Your task to perform on an android device: Open the calendar app, open the side menu, and click the "Day" option Image 0: 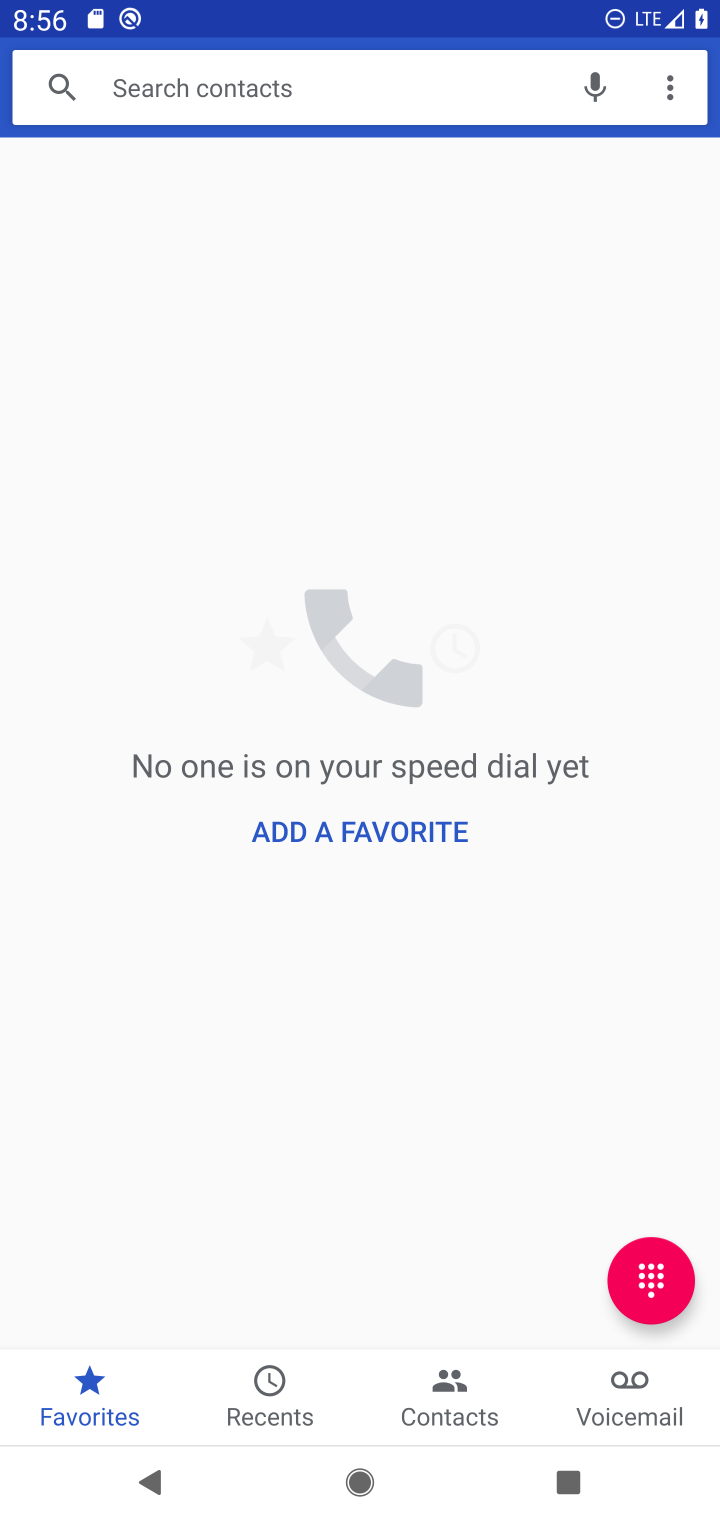
Step 0: press home button
Your task to perform on an android device: Open the calendar app, open the side menu, and click the "Day" option Image 1: 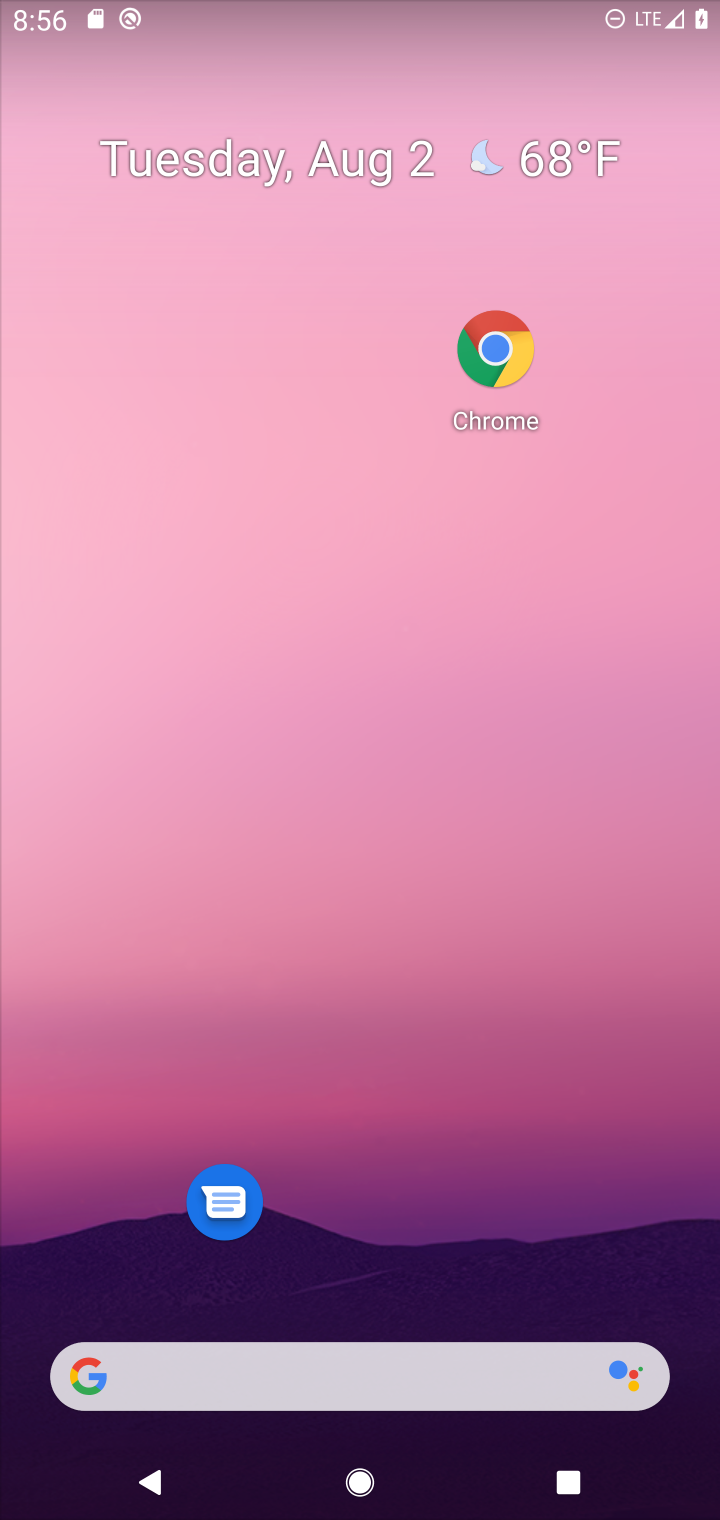
Step 1: drag from (408, 755) to (346, 25)
Your task to perform on an android device: Open the calendar app, open the side menu, and click the "Day" option Image 2: 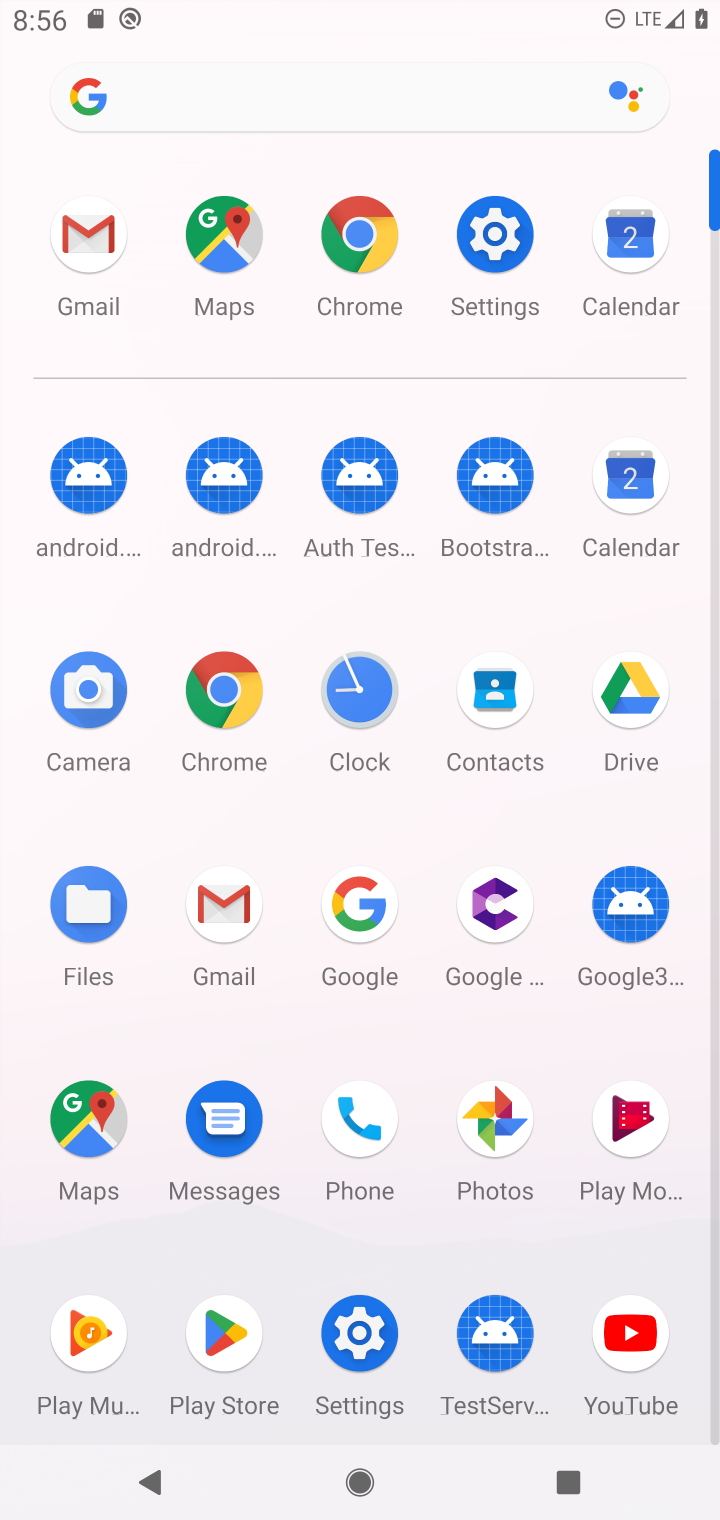
Step 2: click (630, 249)
Your task to perform on an android device: Open the calendar app, open the side menu, and click the "Day" option Image 3: 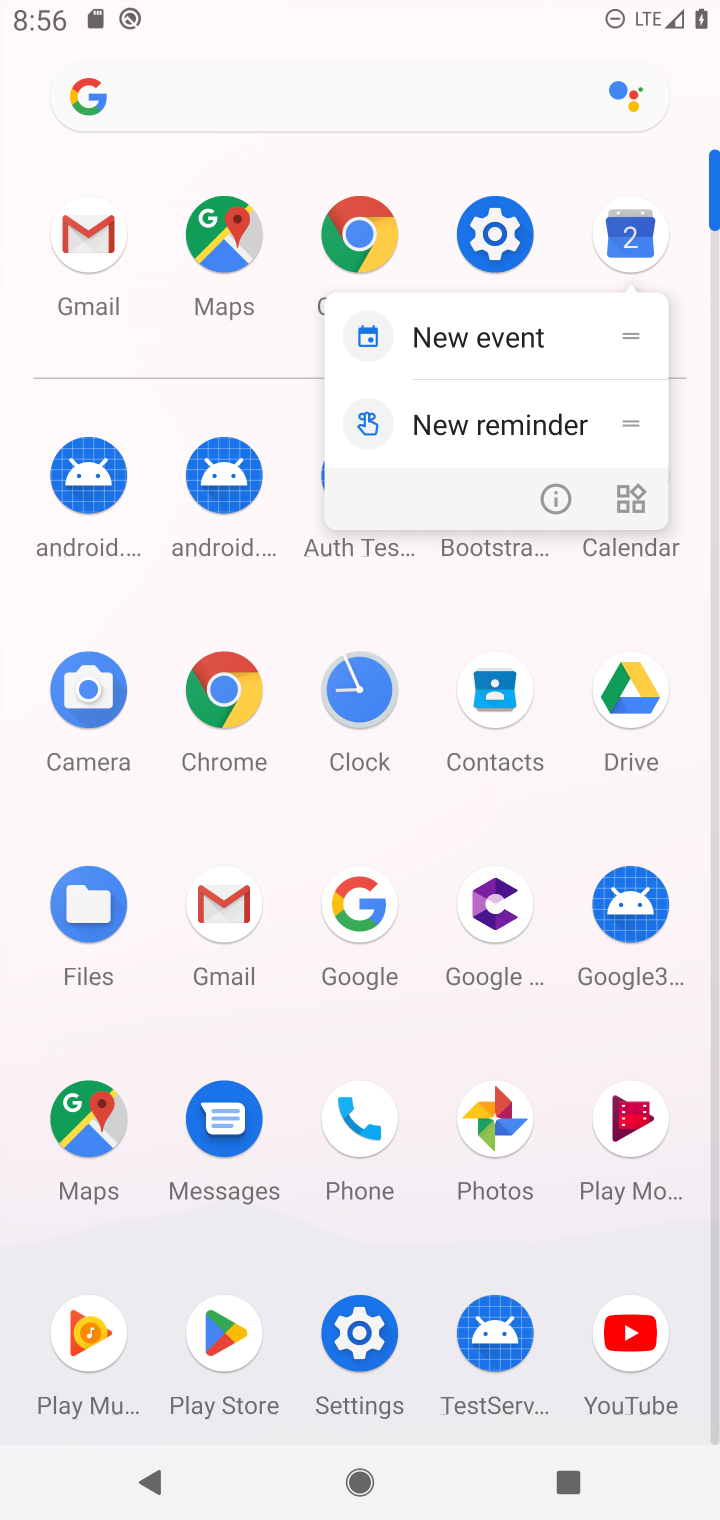
Step 3: click (630, 249)
Your task to perform on an android device: Open the calendar app, open the side menu, and click the "Day" option Image 4: 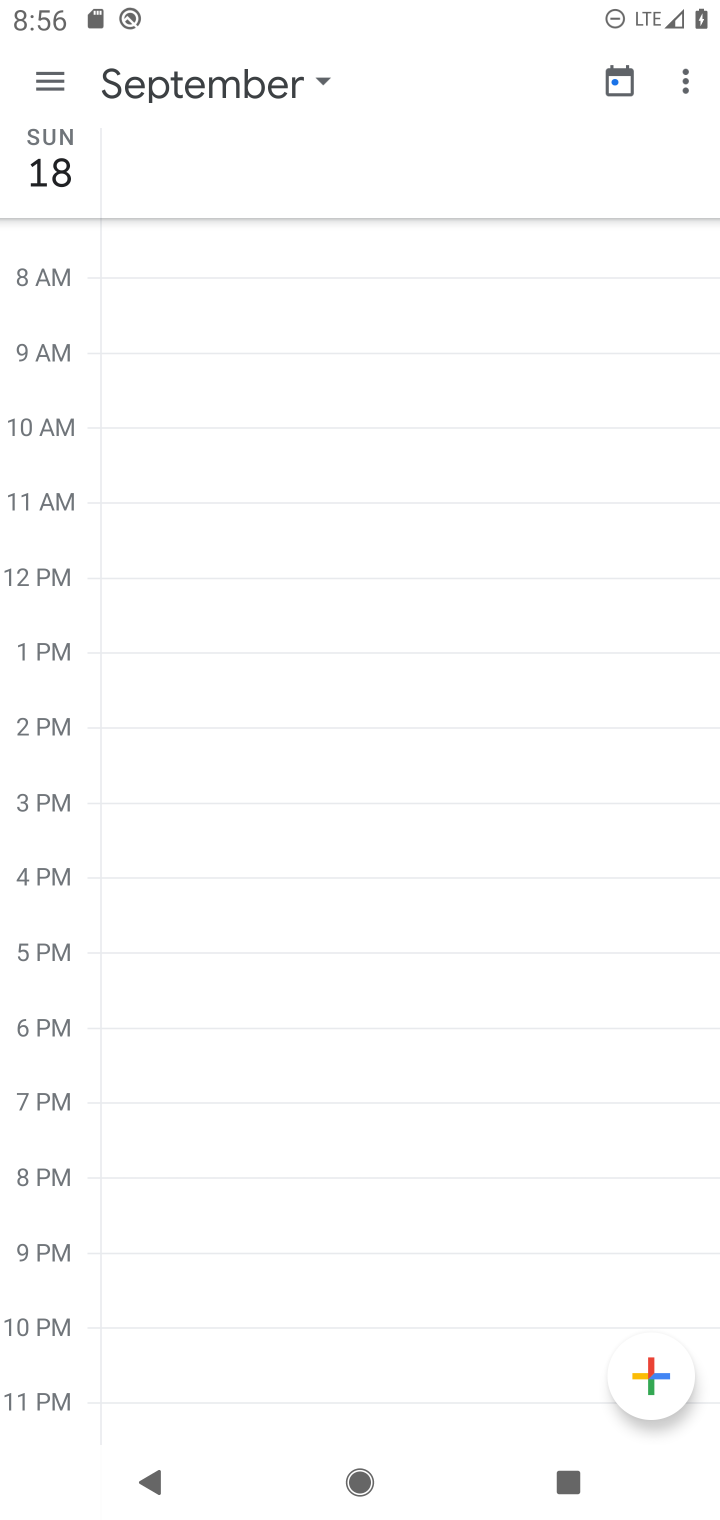
Step 4: click (58, 69)
Your task to perform on an android device: Open the calendar app, open the side menu, and click the "Day" option Image 5: 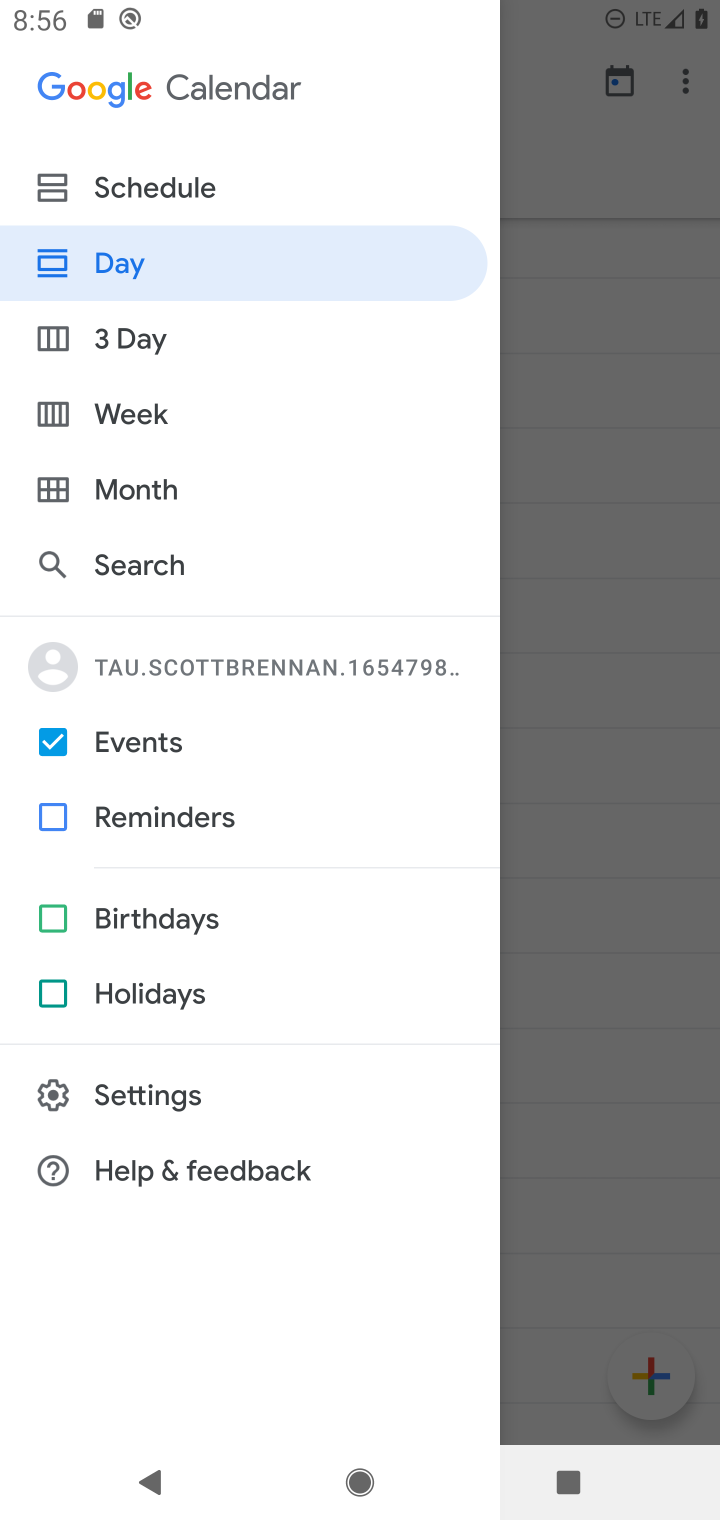
Step 5: click (101, 257)
Your task to perform on an android device: Open the calendar app, open the side menu, and click the "Day" option Image 6: 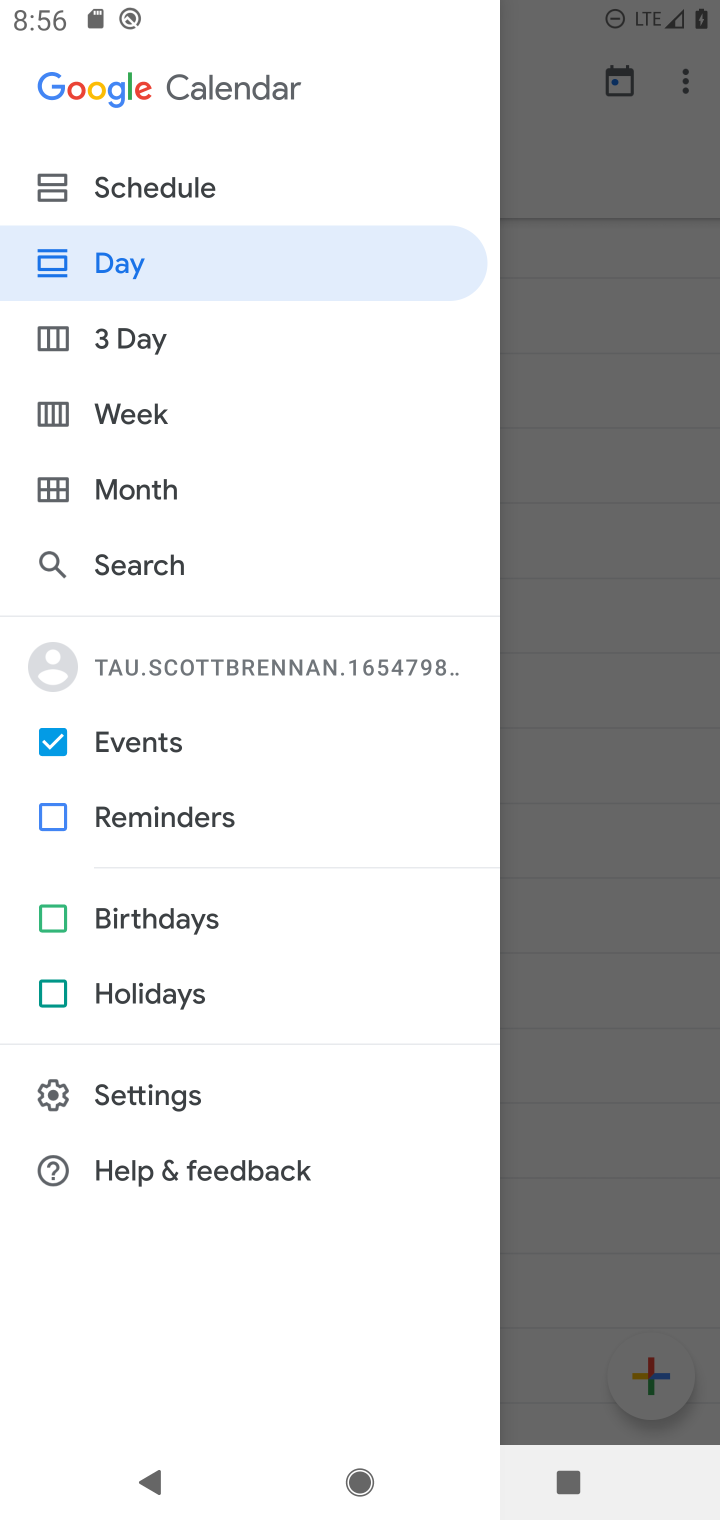
Step 6: click (118, 255)
Your task to perform on an android device: Open the calendar app, open the side menu, and click the "Day" option Image 7: 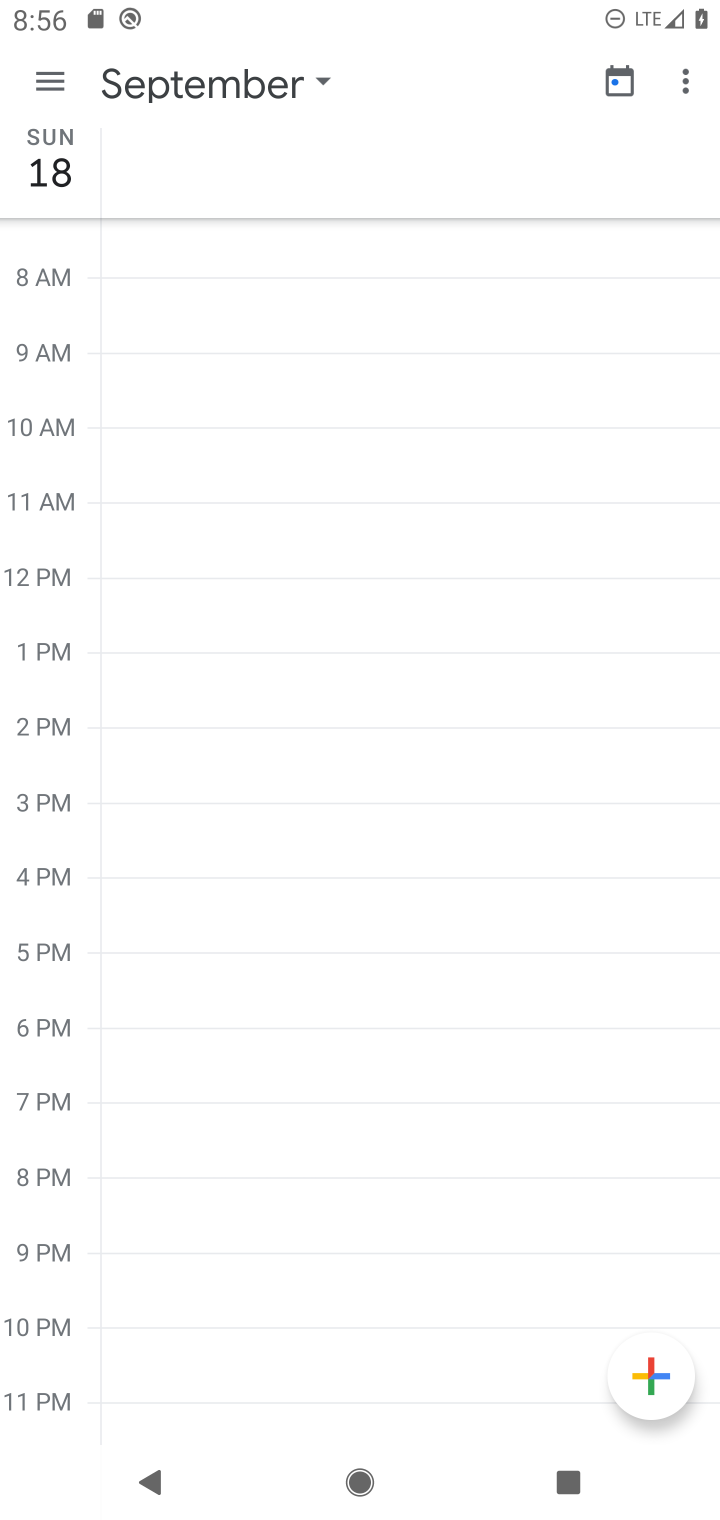
Step 7: task complete